Your task to perform on an android device: Go to sound settings Image 0: 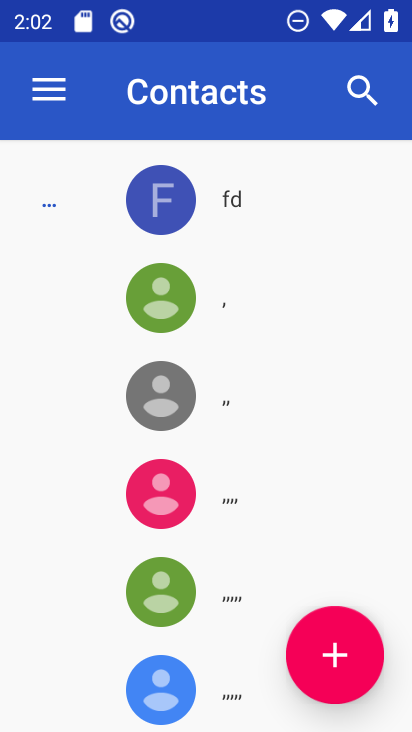
Step 0: press home button
Your task to perform on an android device: Go to sound settings Image 1: 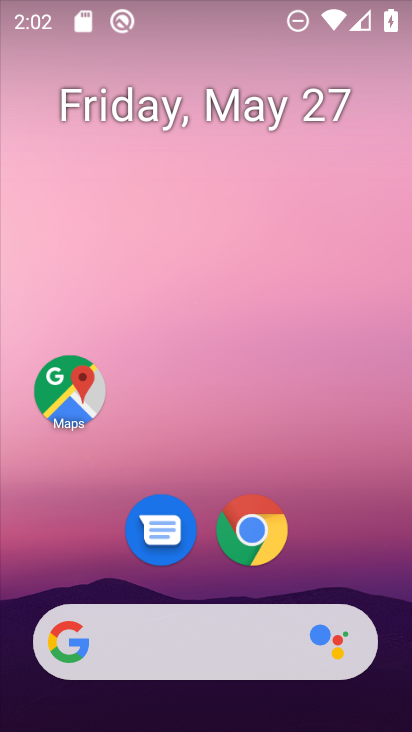
Step 1: drag from (181, 722) to (233, 91)
Your task to perform on an android device: Go to sound settings Image 2: 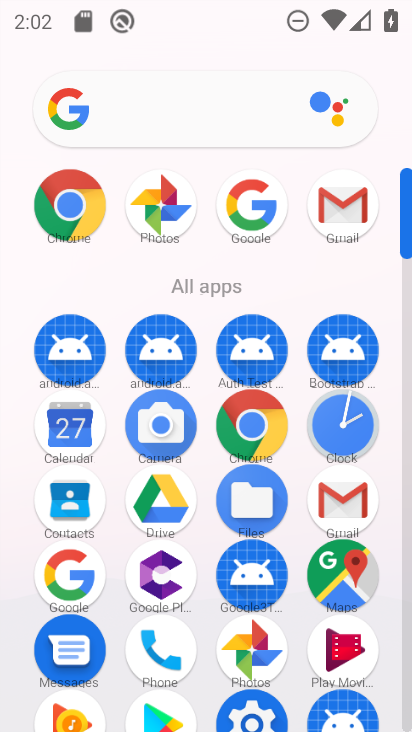
Step 2: click (254, 720)
Your task to perform on an android device: Go to sound settings Image 3: 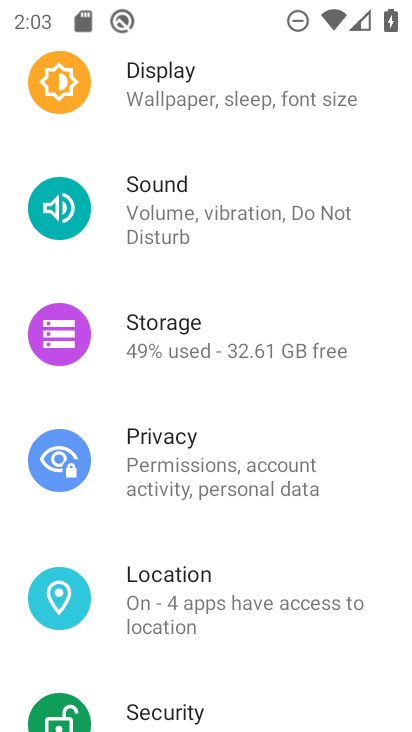
Step 3: click (196, 230)
Your task to perform on an android device: Go to sound settings Image 4: 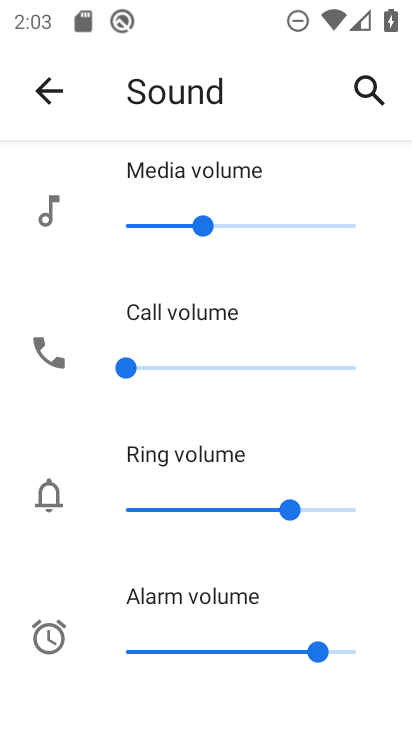
Step 4: task complete